Your task to perform on an android device: turn on showing notifications on the lock screen Image 0: 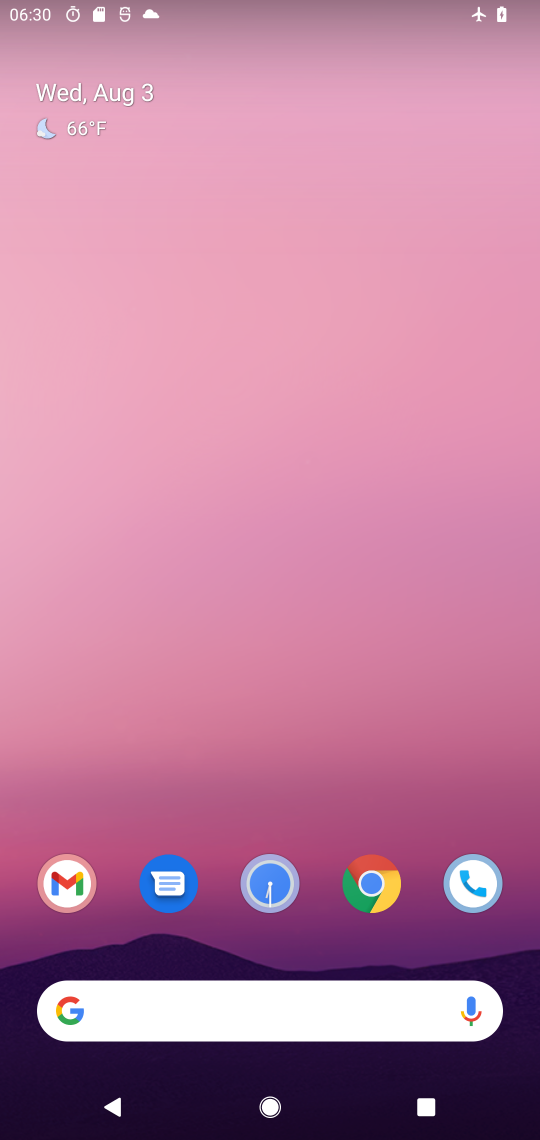
Step 0: drag from (292, 796) to (298, 299)
Your task to perform on an android device: turn on showing notifications on the lock screen Image 1: 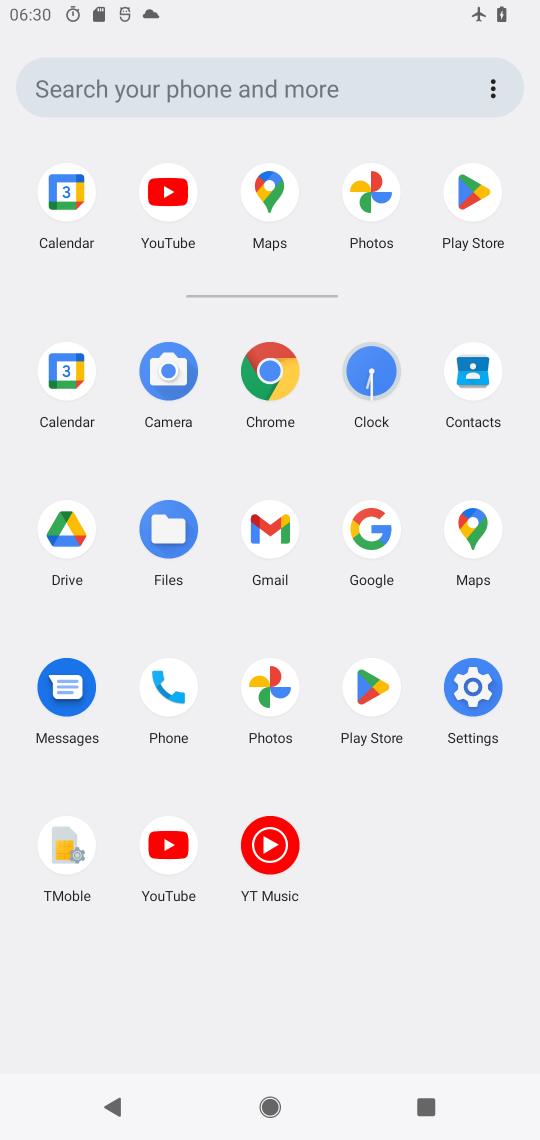
Step 1: click (466, 690)
Your task to perform on an android device: turn on showing notifications on the lock screen Image 2: 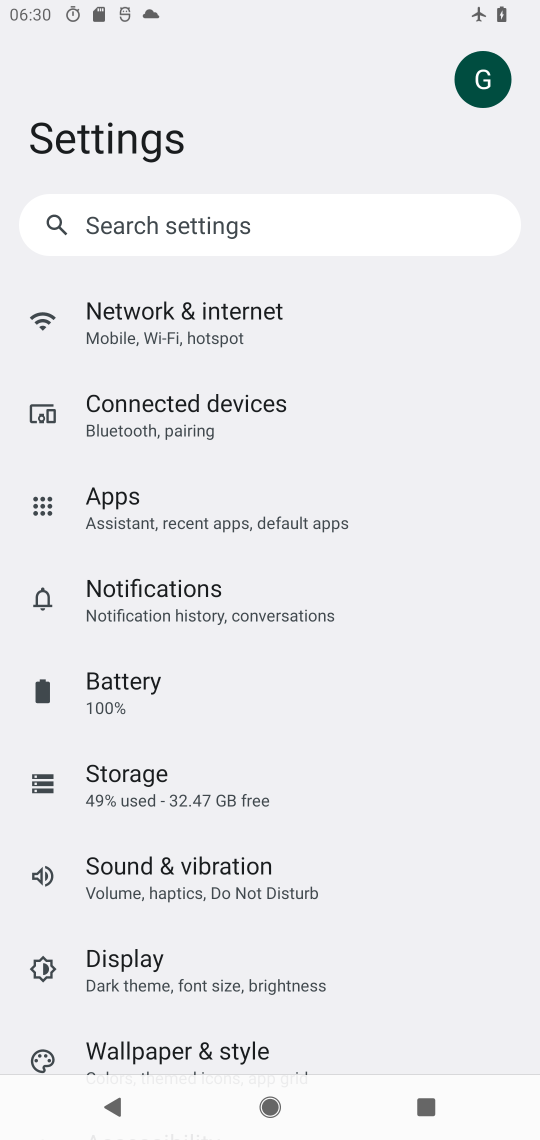
Step 2: click (169, 595)
Your task to perform on an android device: turn on showing notifications on the lock screen Image 3: 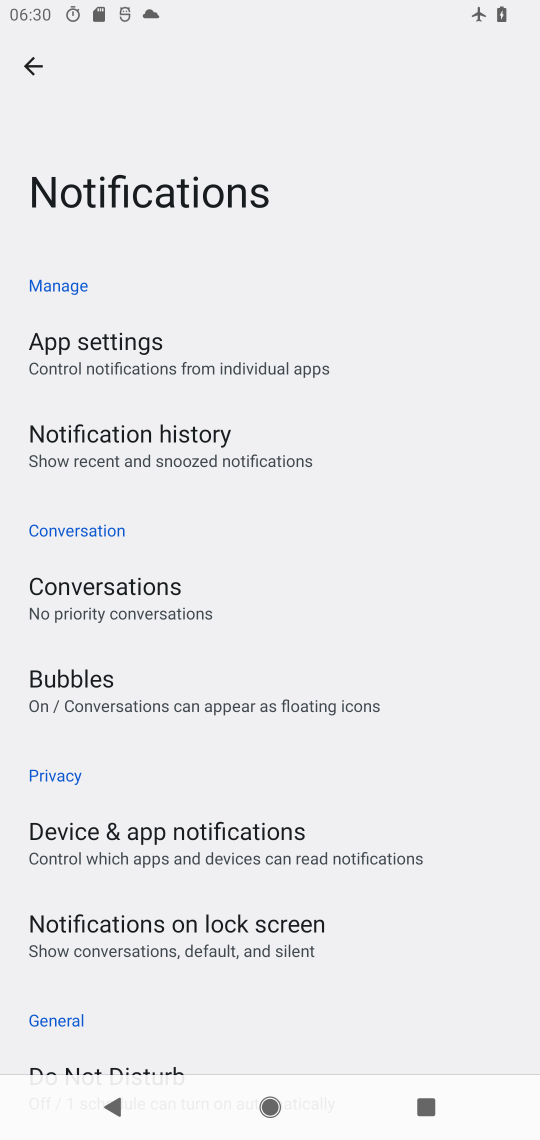
Step 3: click (152, 943)
Your task to perform on an android device: turn on showing notifications on the lock screen Image 4: 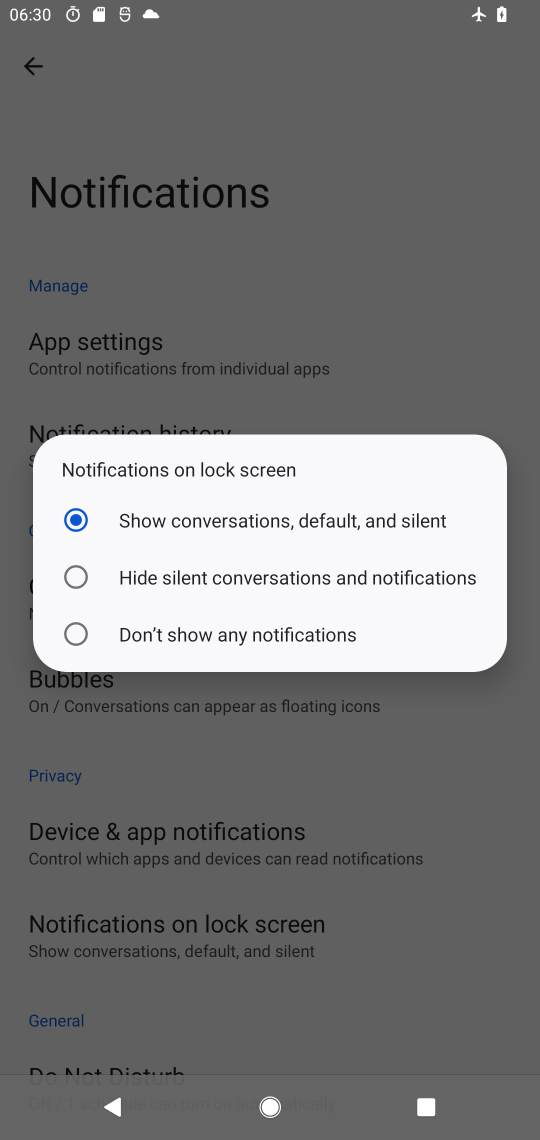
Step 4: task complete